Your task to perform on an android device: Open calendar and show me the second week of next month Image 0: 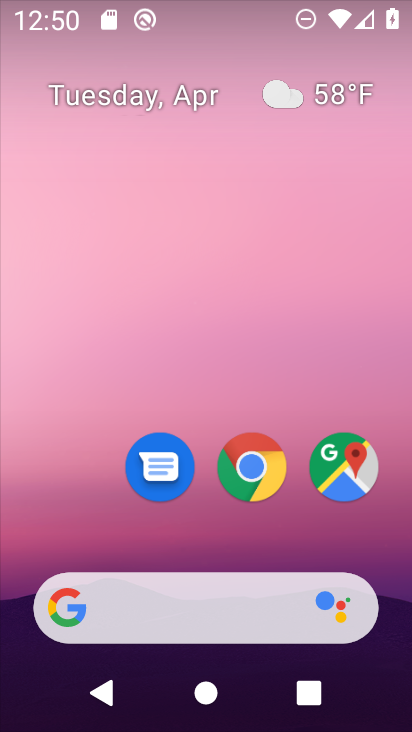
Step 0: click (175, 89)
Your task to perform on an android device: Open calendar and show me the second week of next month Image 1: 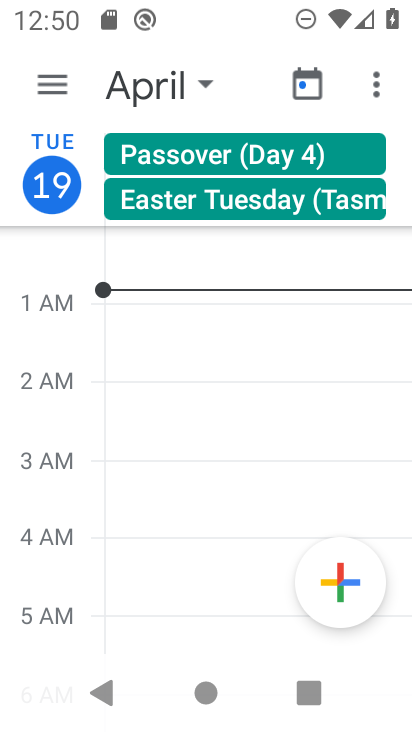
Step 1: click (180, 69)
Your task to perform on an android device: Open calendar and show me the second week of next month Image 2: 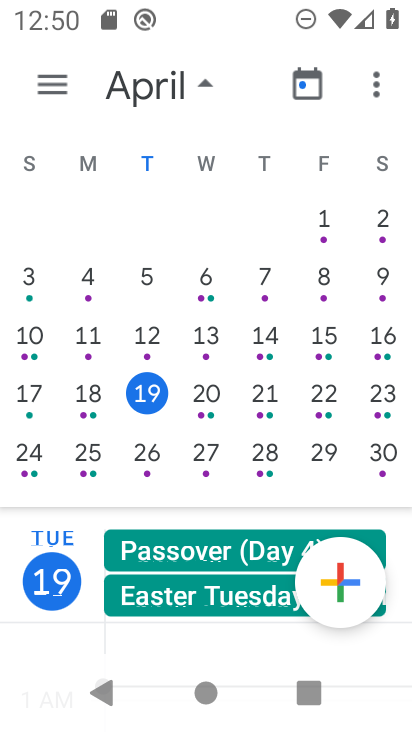
Step 2: drag from (349, 451) to (11, 337)
Your task to perform on an android device: Open calendar and show me the second week of next month Image 3: 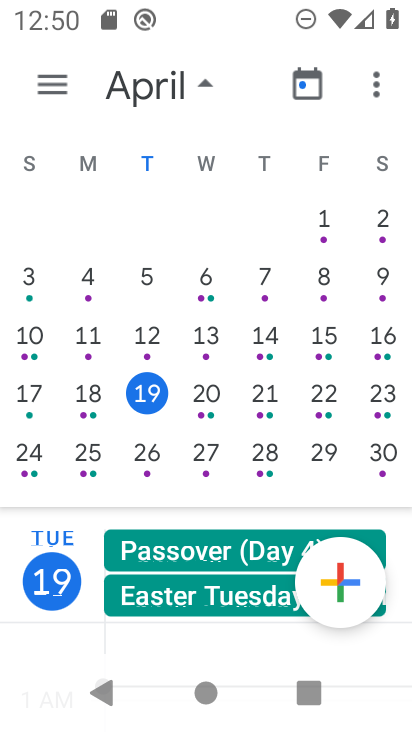
Step 3: drag from (396, 474) to (35, 384)
Your task to perform on an android device: Open calendar and show me the second week of next month Image 4: 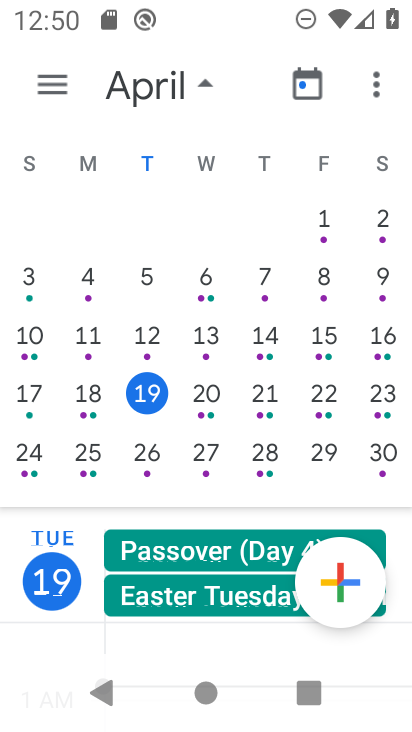
Step 4: drag from (390, 428) to (56, 414)
Your task to perform on an android device: Open calendar and show me the second week of next month Image 5: 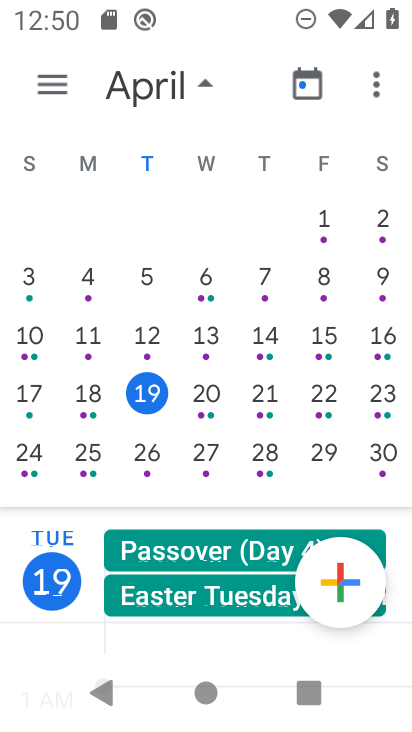
Step 5: drag from (383, 246) to (60, 276)
Your task to perform on an android device: Open calendar and show me the second week of next month Image 6: 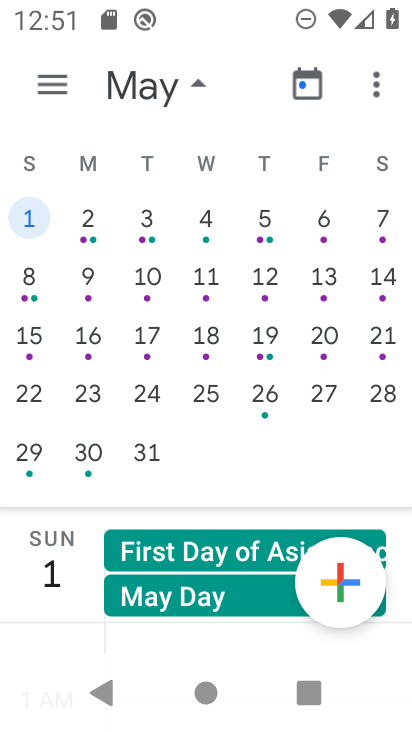
Step 6: click (266, 271)
Your task to perform on an android device: Open calendar and show me the second week of next month Image 7: 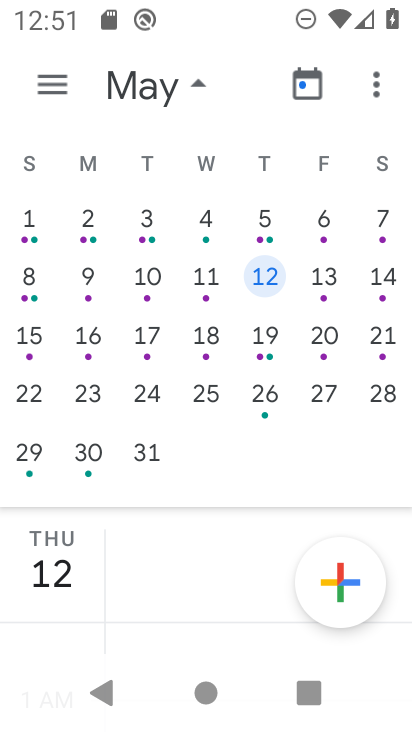
Step 7: task complete